Your task to perform on an android device: turn on improve location accuracy Image 0: 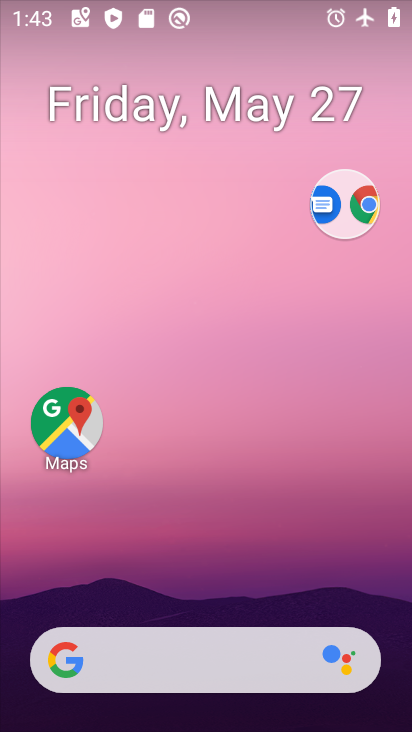
Step 0: drag from (210, 687) to (196, 263)
Your task to perform on an android device: turn on improve location accuracy Image 1: 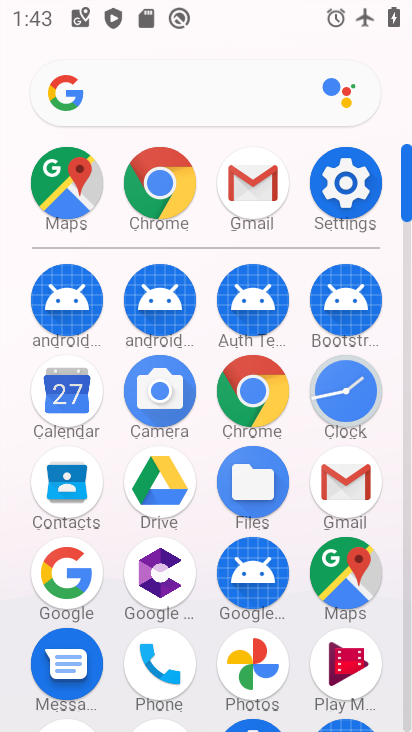
Step 1: click (341, 204)
Your task to perform on an android device: turn on improve location accuracy Image 2: 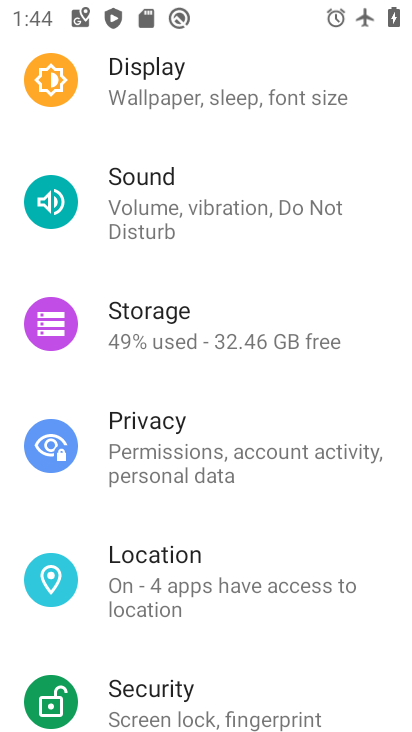
Step 2: click (205, 573)
Your task to perform on an android device: turn on improve location accuracy Image 3: 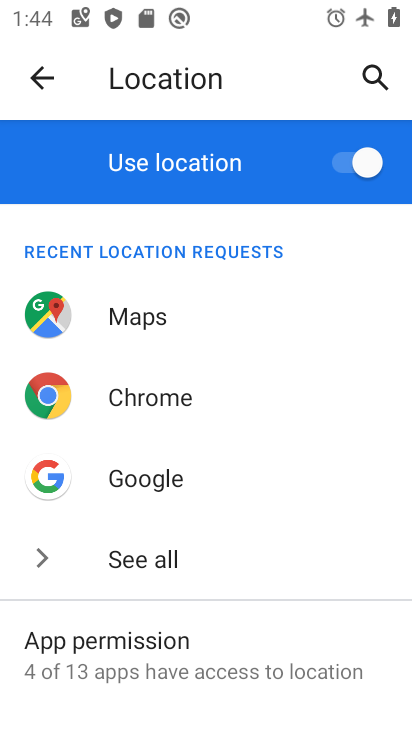
Step 3: drag from (174, 596) to (207, 263)
Your task to perform on an android device: turn on improve location accuracy Image 4: 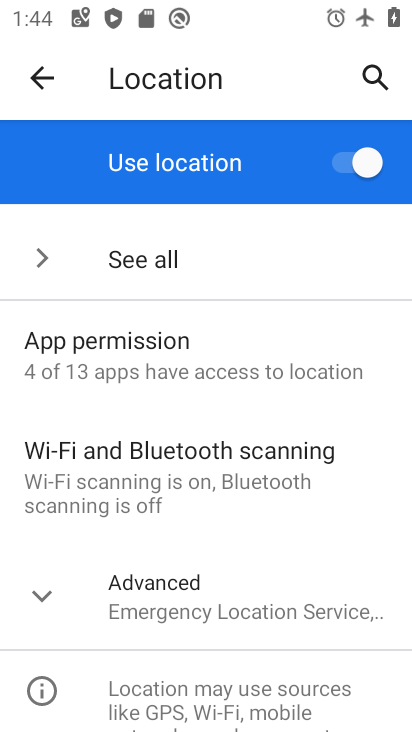
Step 4: click (131, 598)
Your task to perform on an android device: turn on improve location accuracy Image 5: 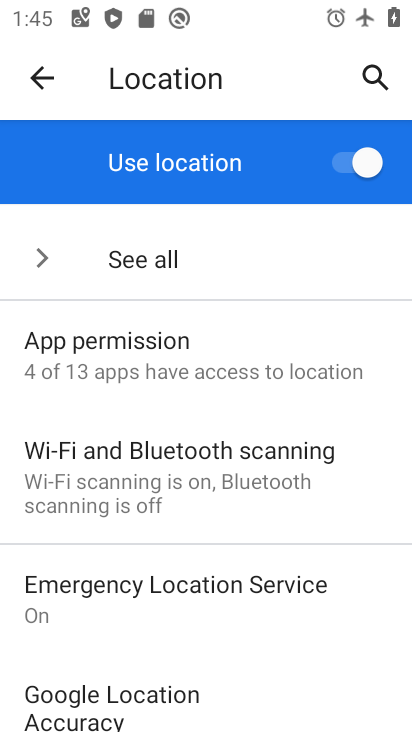
Step 5: drag from (144, 528) to (174, 320)
Your task to perform on an android device: turn on improve location accuracy Image 6: 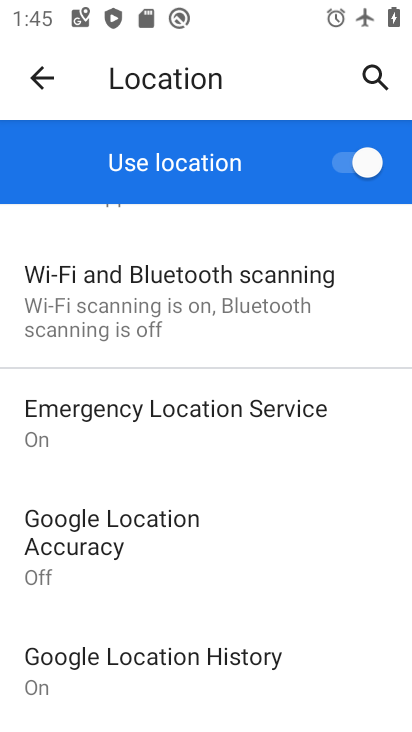
Step 6: drag from (160, 529) to (159, 396)
Your task to perform on an android device: turn on improve location accuracy Image 7: 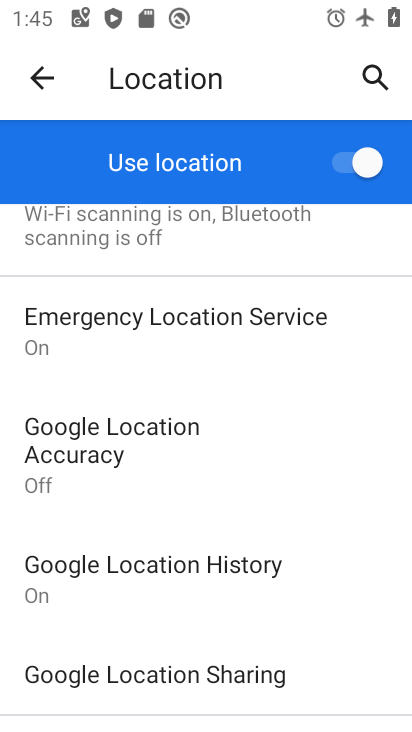
Step 7: click (147, 458)
Your task to perform on an android device: turn on improve location accuracy Image 8: 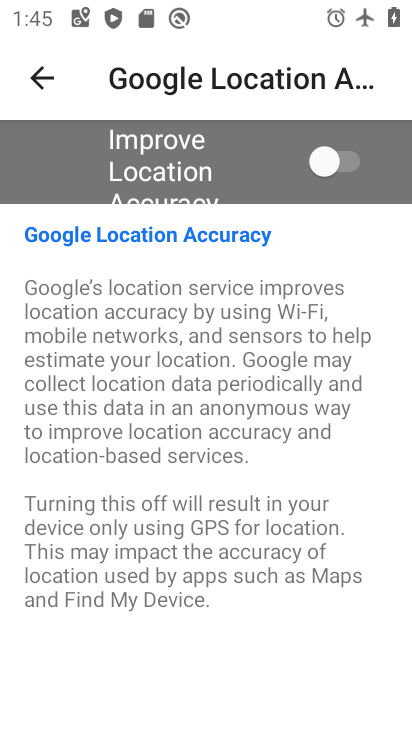
Step 8: click (362, 175)
Your task to perform on an android device: turn on improve location accuracy Image 9: 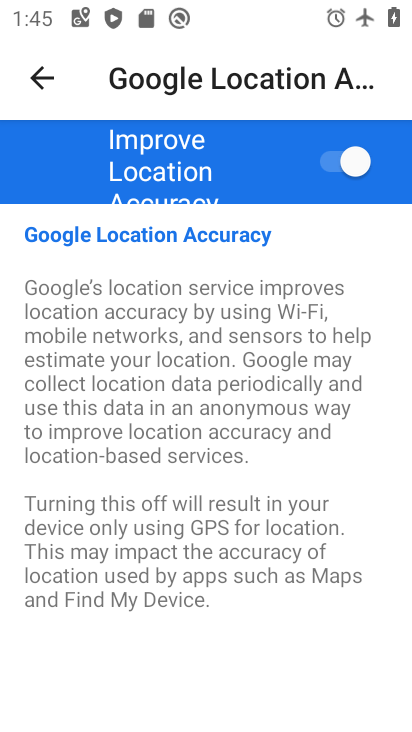
Step 9: task complete